Your task to perform on an android device: Open display settings Image 0: 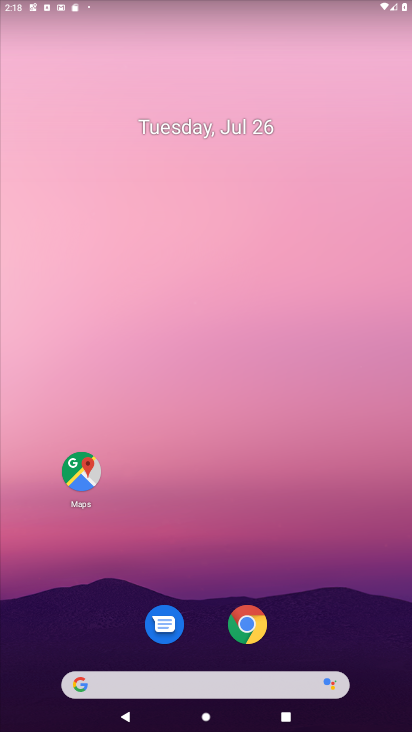
Step 0: drag from (191, 665) to (191, 204)
Your task to perform on an android device: Open display settings Image 1: 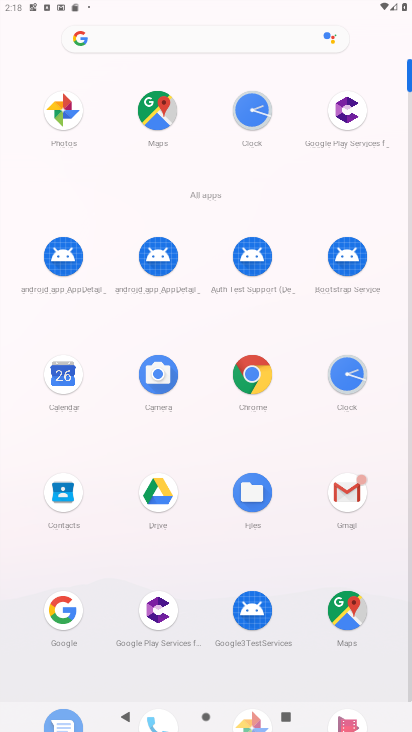
Step 1: drag from (203, 634) to (193, 208)
Your task to perform on an android device: Open display settings Image 2: 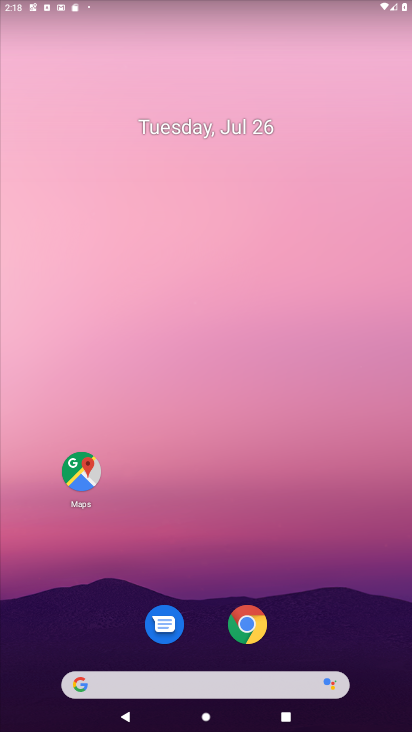
Step 2: drag from (194, 669) to (204, 272)
Your task to perform on an android device: Open display settings Image 3: 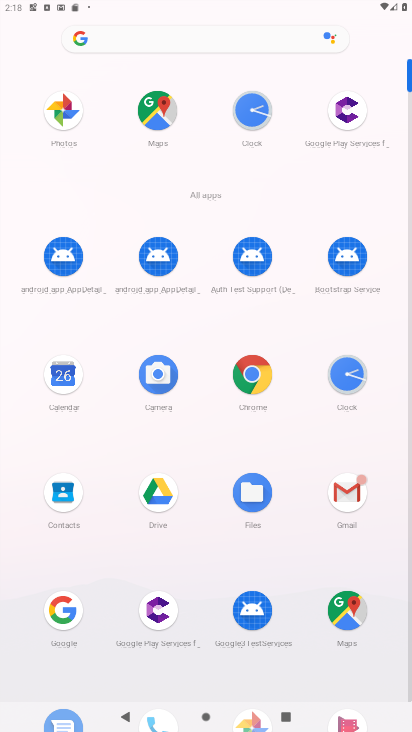
Step 3: drag from (96, 674) to (114, 229)
Your task to perform on an android device: Open display settings Image 4: 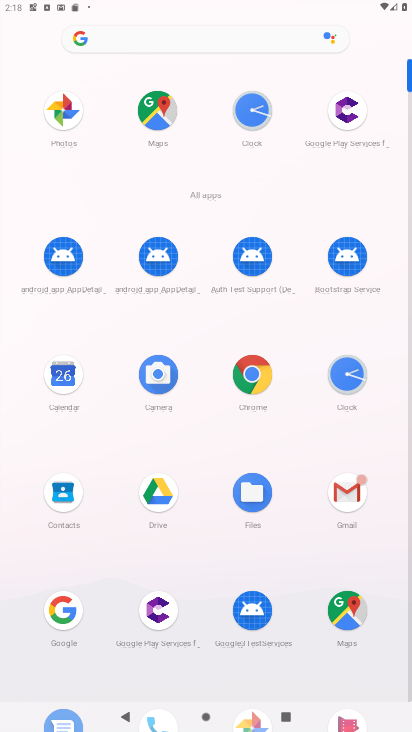
Step 4: drag from (212, 601) to (212, 181)
Your task to perform on an android device: Open display settings Image 5: 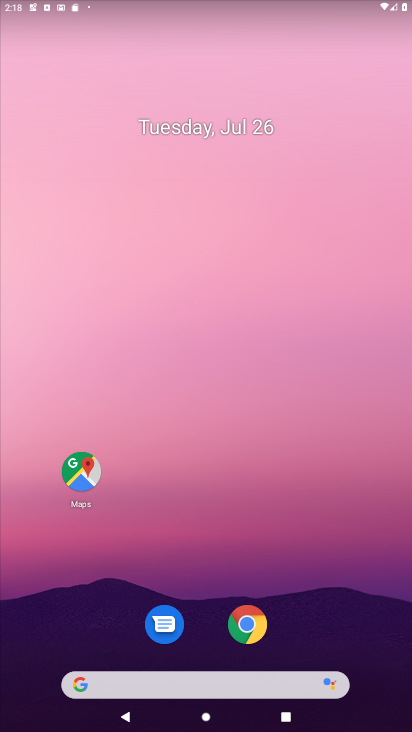
Step 5: drag from (179, 668) to (179, 244)
Your task to perform on an android device: Open display settings Image 6: 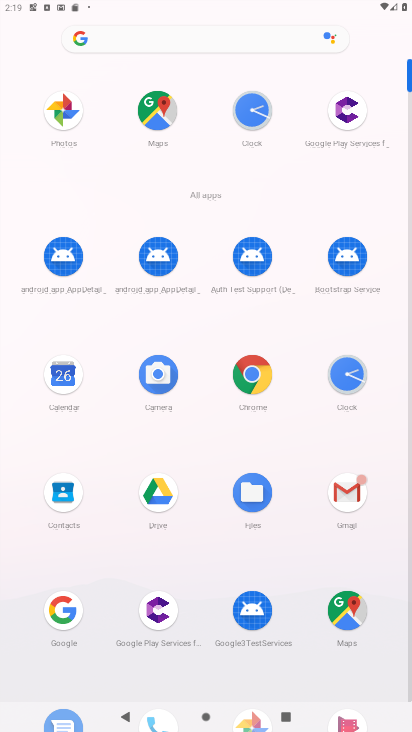
Step 6: drag from (103, 691) to (125, 298)
Your task to perform on an android device: Open display settings Image 7: 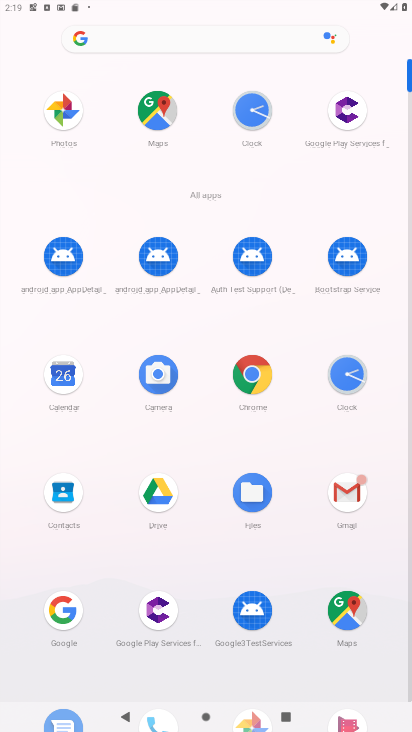
Step 7: drag from (378, 643) to (411, 126)
Your task to perform on an android device: Open display settings Image 8: 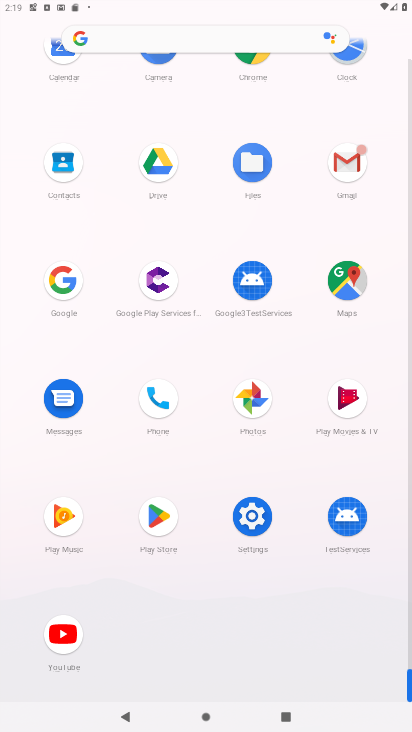
Step 8: drag from (278, 647) to (295, 166)
Your task to perform on an android device: Open display settings Image 9: 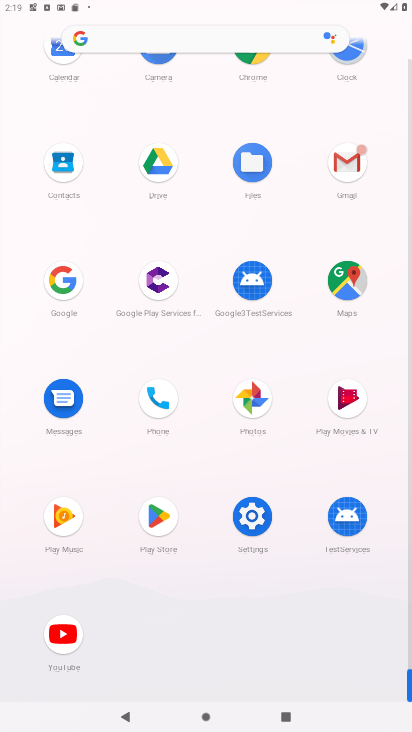
Step 9: click (252, 521)
Your task to perform on an android device: Open display settings Image 10: 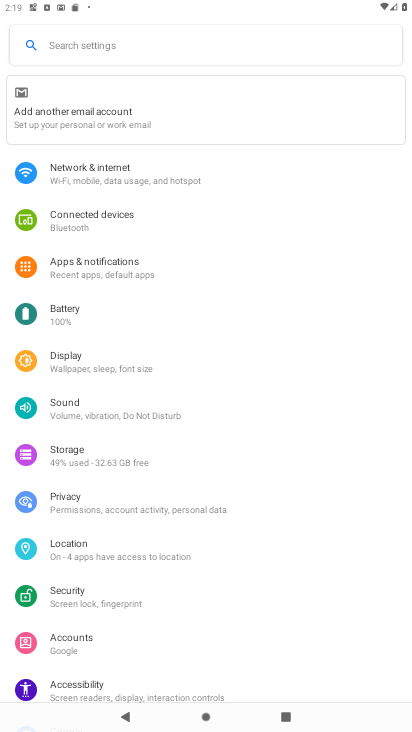
Step 10: click (77, 360)
Your task to perform on an android device: Open display settings Image 11: 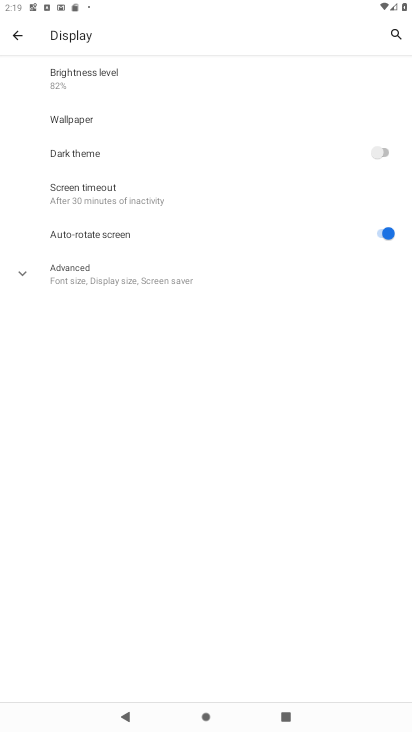
Step 11: click (81, 281)
Your task to perform on an android device: Open display settings Image 12: 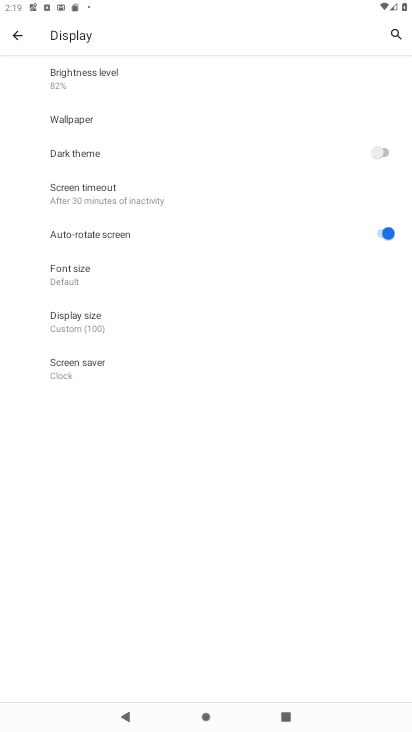
Step 12: task complete